Your task to perform on an android device: Go to network settings Image 0: 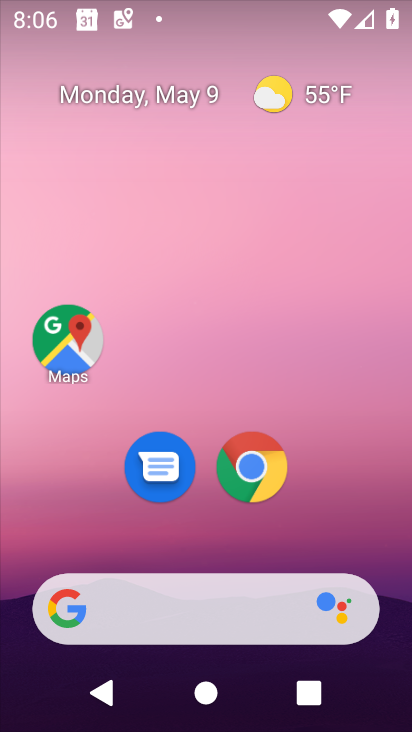
Step 0: drag from (377, 564) to (374, 2)
Your task to perform on an android device: Go to network settings Image 1: 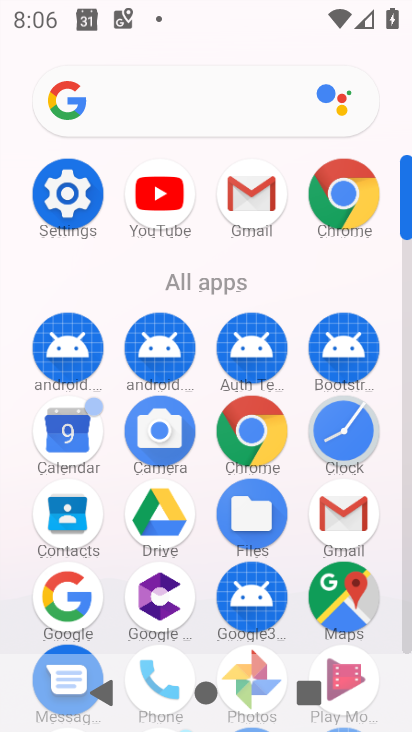
Step 1: click (67, 196)
Your task to perform on an android device: Go to network settings Image 2: 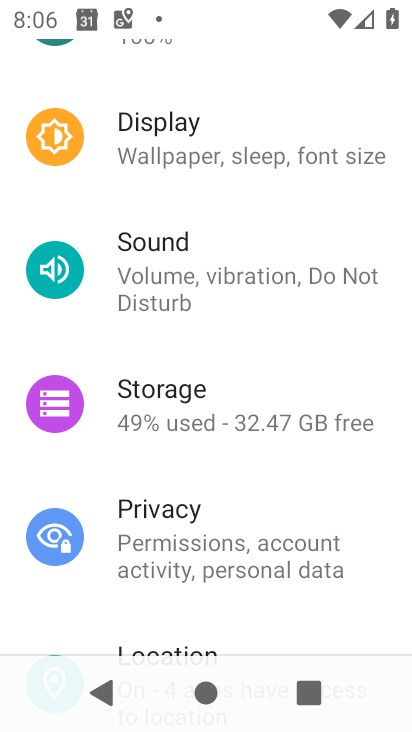
Step 2: drag from (319, 235) to (332, 563)
Your task to perform on an android device: Go to network settings Image 3: 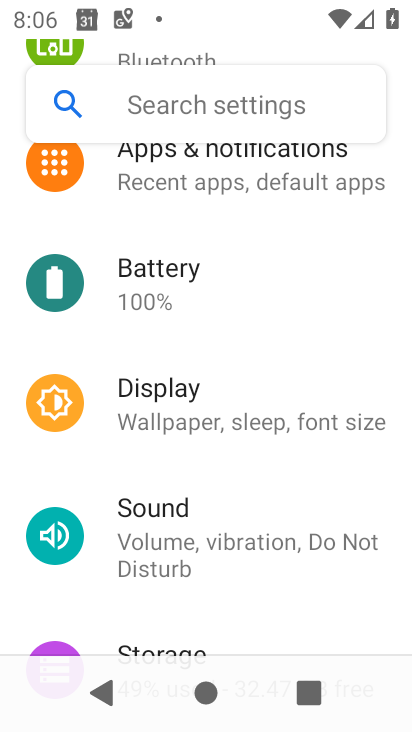
Step 3: drag from (329, 228) to (333, 536)
Your task to perform on an android device: Go to network settings Image 4: 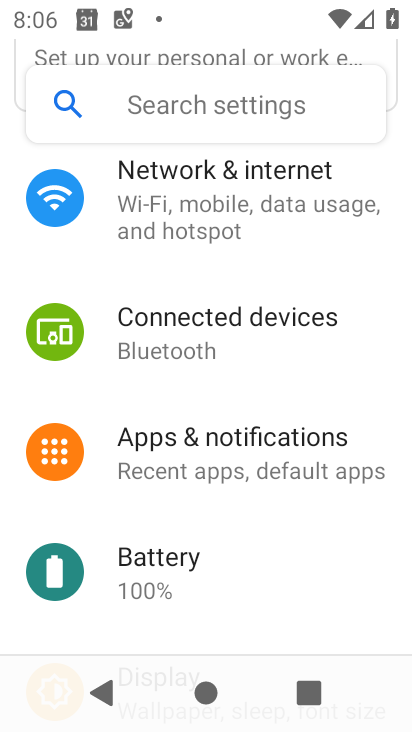
Step 4: click (209, 229)
Your task to perform on an android device: Go to network settings Image 5: 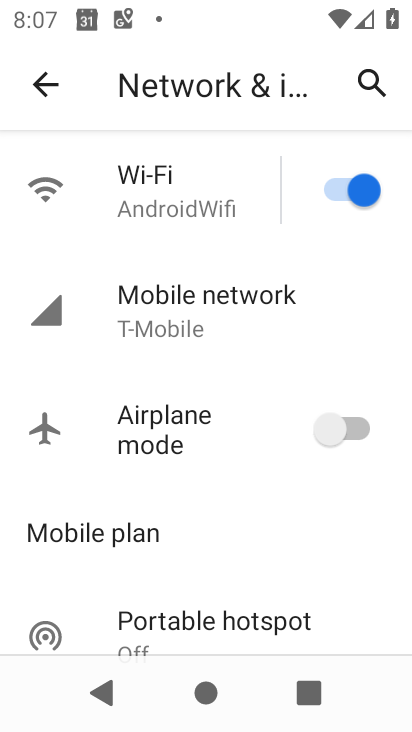
Step 5: click (175, 334)
Your task to perform on an android device: Go to network settings Image 6: 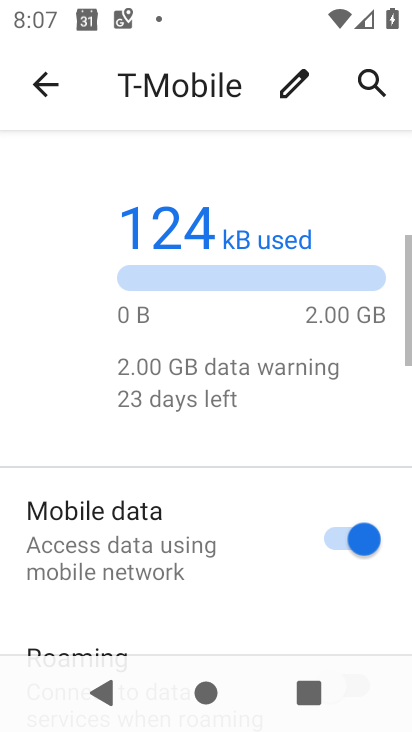
Step 6: drag from (221, 553) to (170, 153)
Your task to perform on an android device: Go to network settings Image 7: 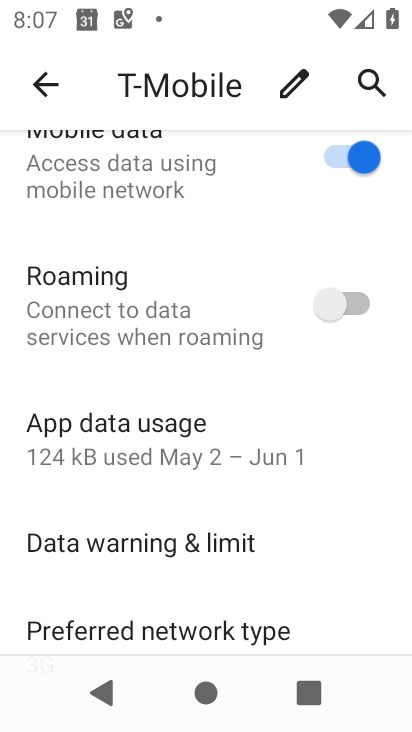
Step 7: drag from (198, 486) to (177, 202)
Your task to perform on an android device: Go to network settings Image 8: 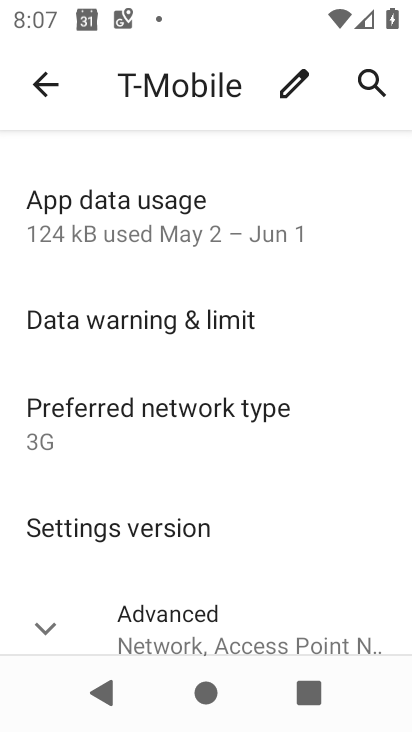
Step 8: drag from (137, 570) to (106, 201)
Your task to perform on an android device: Go to network settings Image 9: 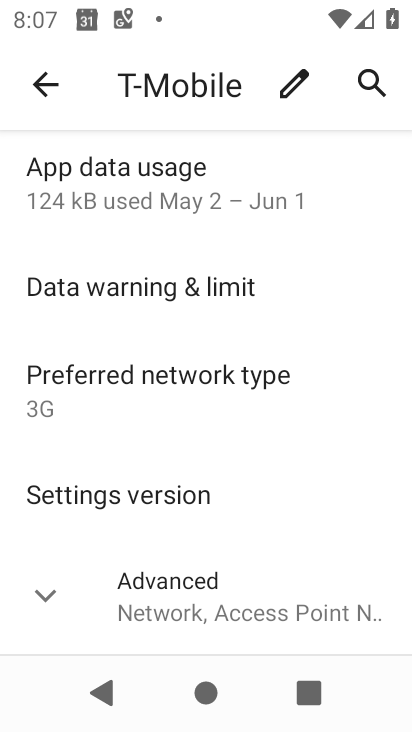
Step 9: click (46, 604)
Your task to perform on an android device: Go to network settings Image 10: 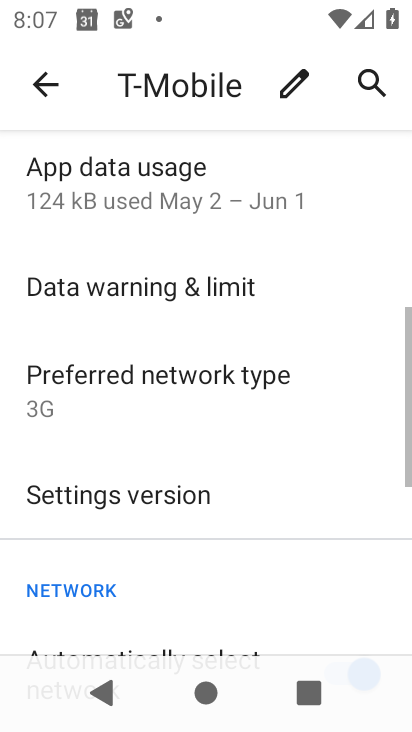
Step 10: task complete